Your task to perform on an android device: delete the emails in spam in the gmail app Image 0: 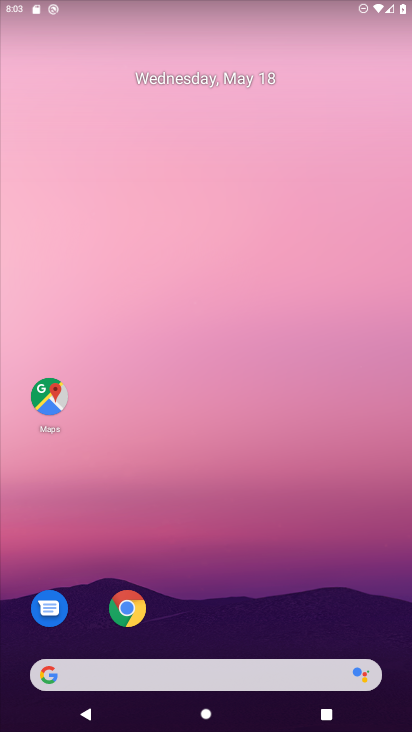
Step 0: drag from (250, 649) to (239, 68)
Your task to perform on an android device: delete the emails in spam in the gmail app Image 1: 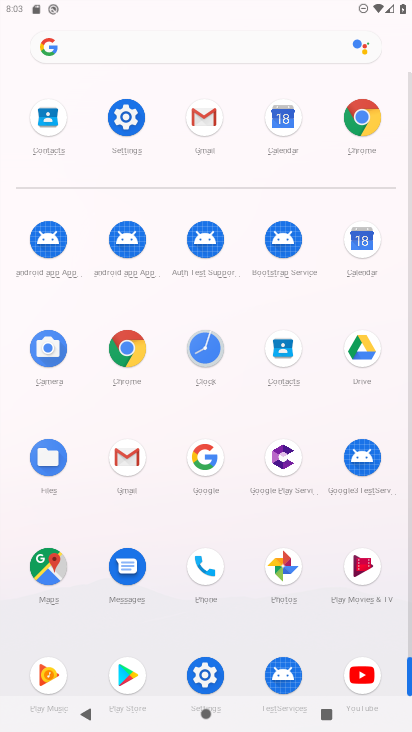
Step 1: click (122, 469)
Your task to perform on an android device: delete the emails in spam in the gmail app Image 2: 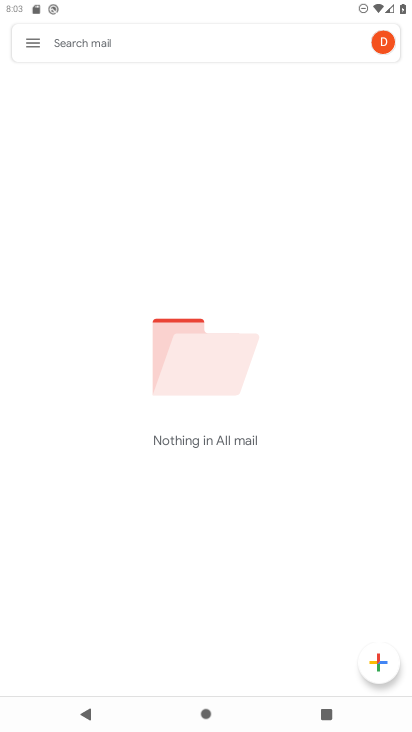
Step 2: click (36, 47)
Your task to perform on an android device: delete the emails in spam in the gmail app Image 3: 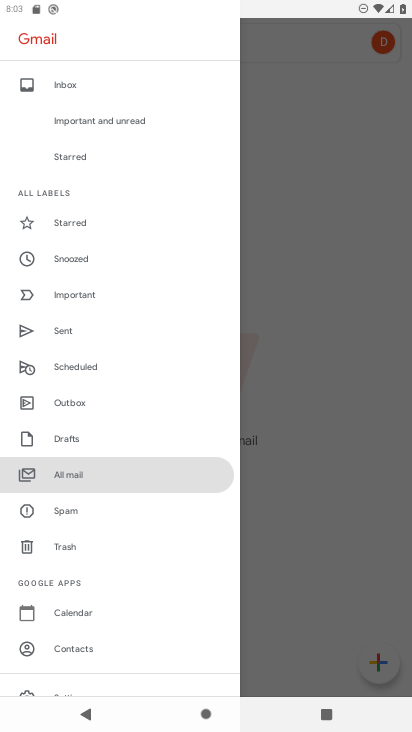
Step 3: click (82, 509)
Your task to perform on an android device: delete the emails in spam in the gmail app Image 4: 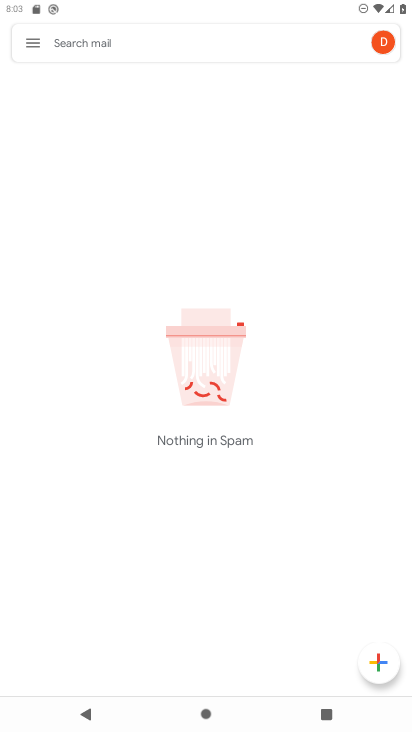
Step 4: task complete